Your task to perform on an android device: Go to privacy settings Image 0: 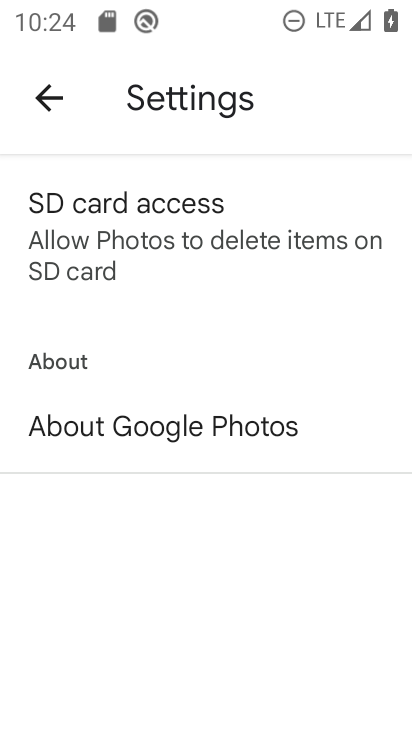
Step 0: press home button
Your task to perform on an android device: Go to privacy settings Image 1: 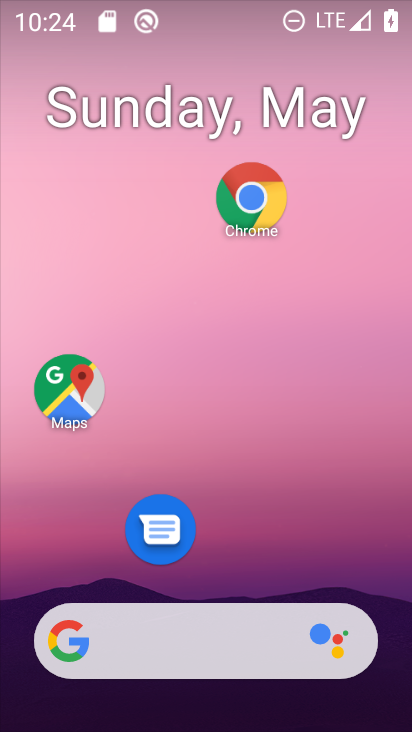
Step 1: drag from (248, 564) to (265, 39)
Your task to perform on an android device: Go to privacy settings Image 2: 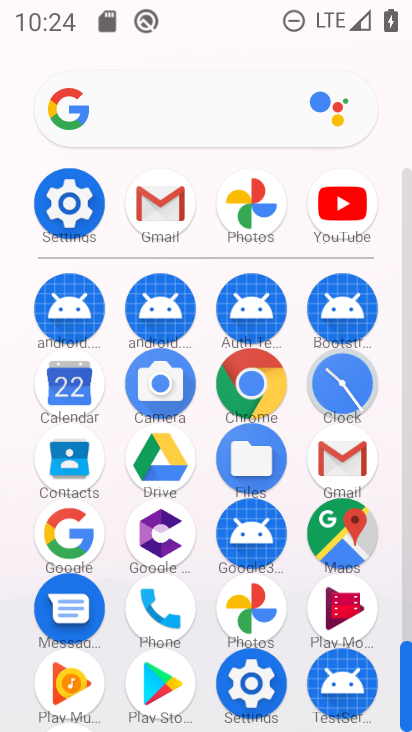
Step 2: click (67, 199)
Your task to perform on an android device: Go to privacy settings Image 3: 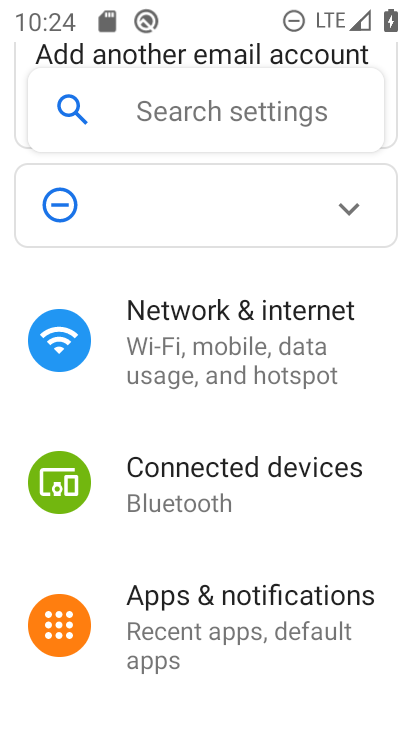
Step 3: drag from (181, 634) to (246, 352)
Your task to perform on an android device: Go to privacy settings Image 4: 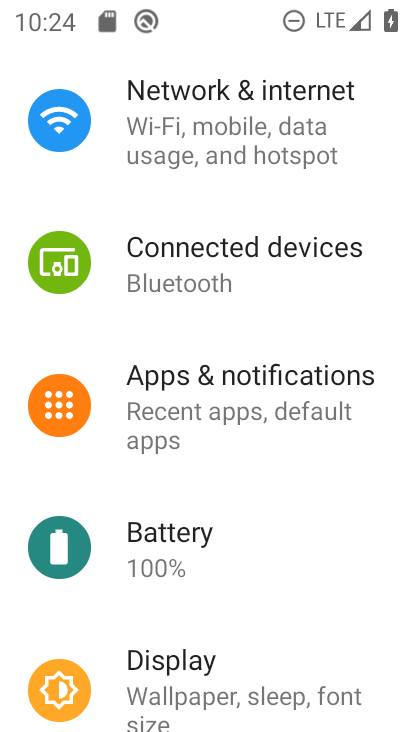
Step 4: drag from (200, 624) to (243, 364)
Your task to perform on an android device: Go to privacy settings Image 5: 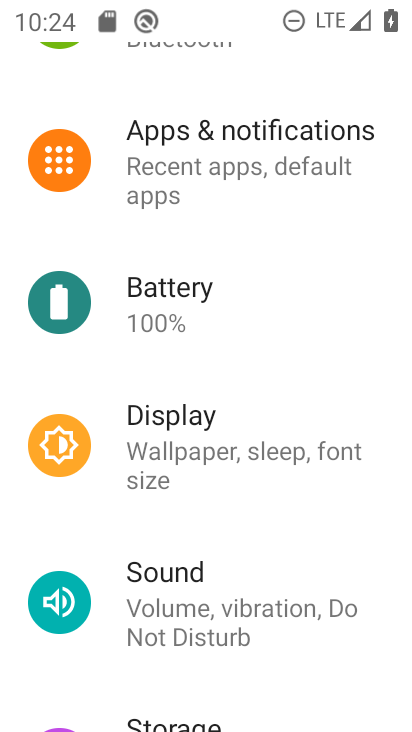
Step 5: drag from (236, 577) to (268, 329)
Your task to perform on an android device: Go to privacy settings Image 6: 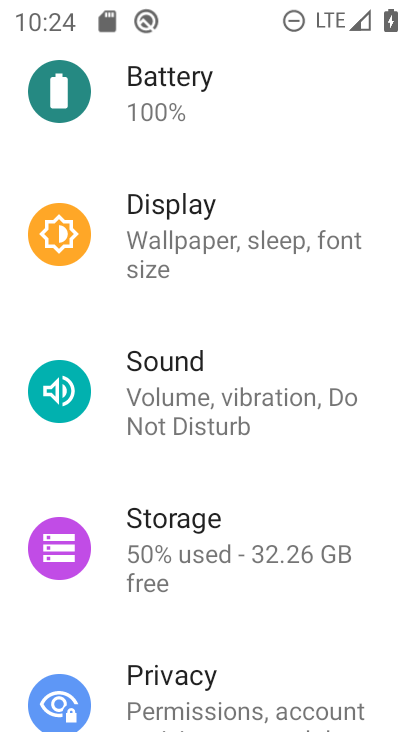
Step 6: drag from (205, 624) to (237, 436)
Your task to perform on an android device: Go to privacy settings Image 7: 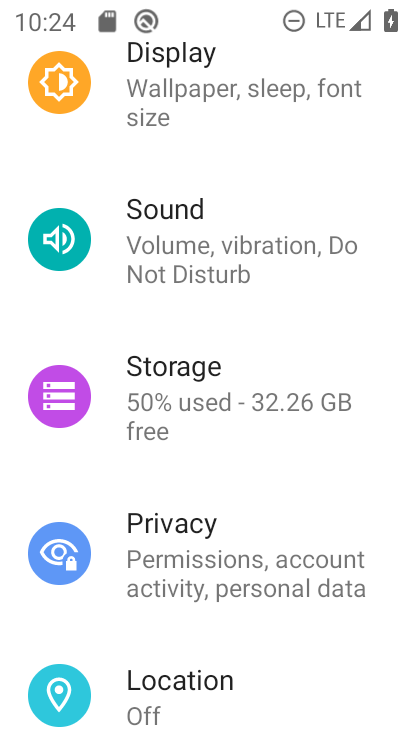
Step 7: click (155, 555)
Your task to perform on an android device: Go to privacy settings Image 8: 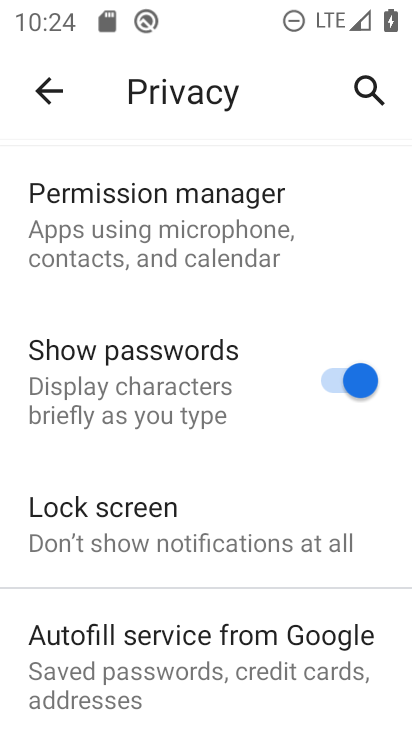
Step 8: task complete